Your task to perform on an android device: What is the recent news? Image 0: 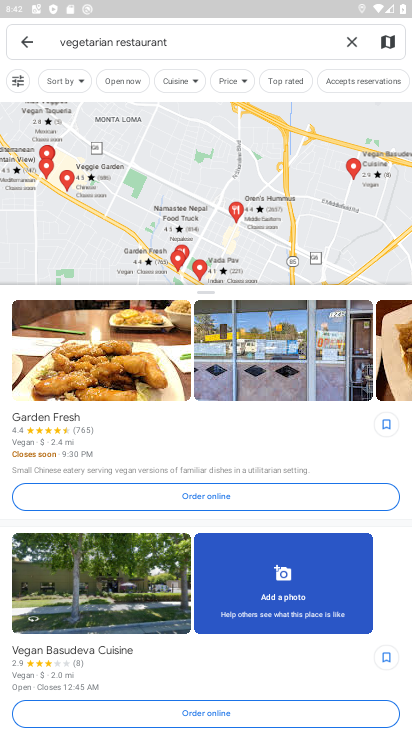
Step 0: press home button
Your task to perform on an android device: What is the recent news? Image 1: 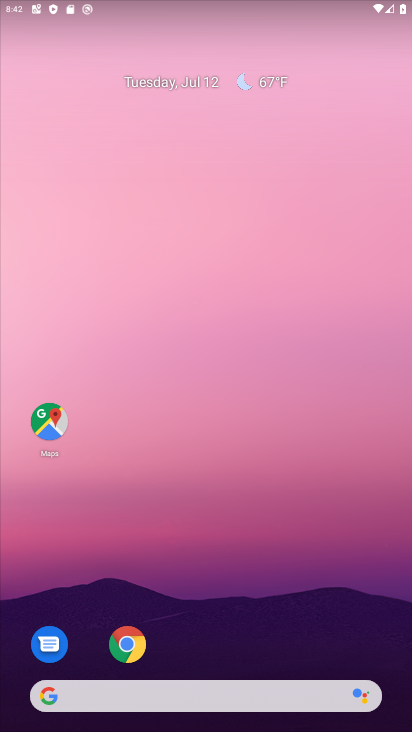
Step 1: drag from (183, 670) to (209, 62)
Your task to perform on an android device: What is the recent news? Image 2: 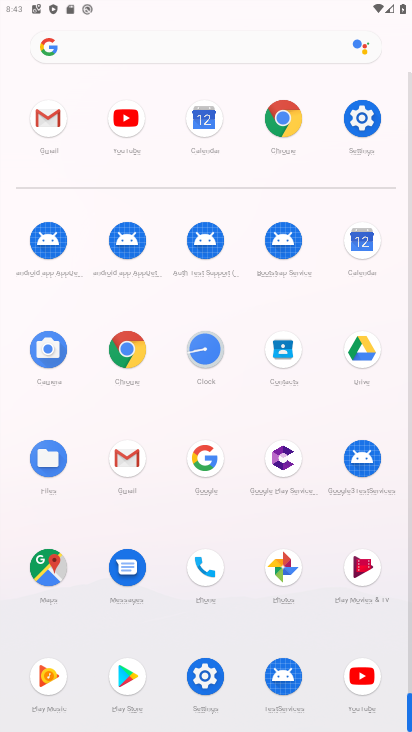
Step 2: click (168, 39)
Your task to perform on an android device: What is the recent news? Image 3: 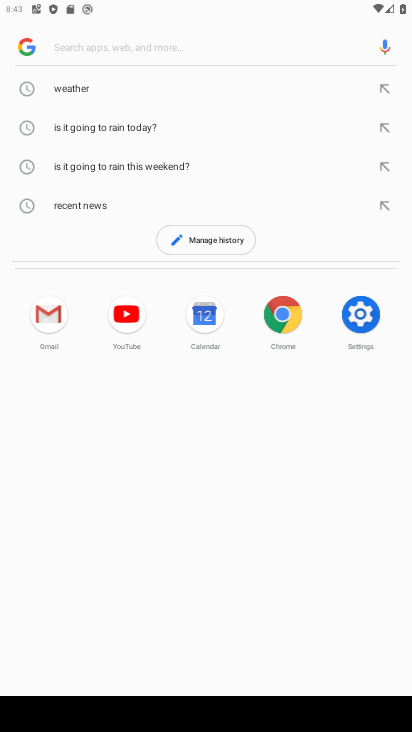
Step 3: type "recent news"
Your task to perform on an android device: What is the recent news? Image 4: 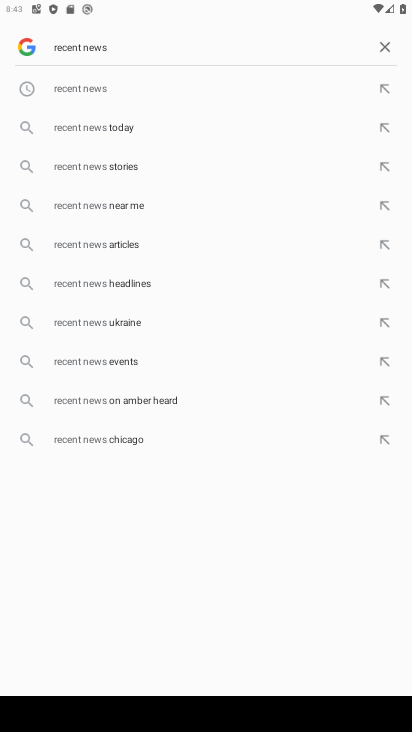
Step 4: click (99, 86)
Your task to perform on an android device: What is the recent news? Image 5: 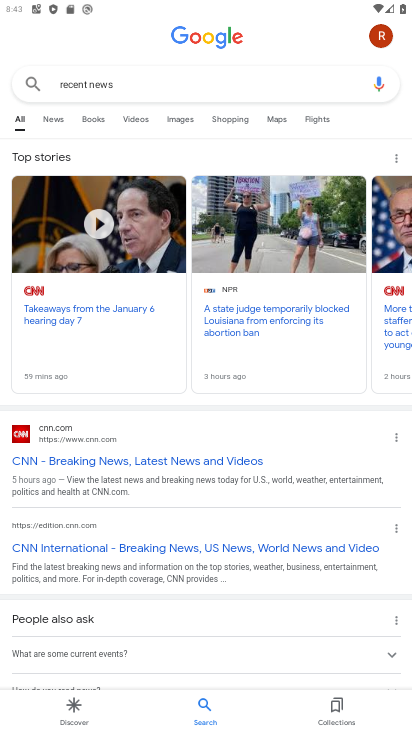
Step 5: task complete